Your task to perform on an android device: turn on airplane mode Image 0: 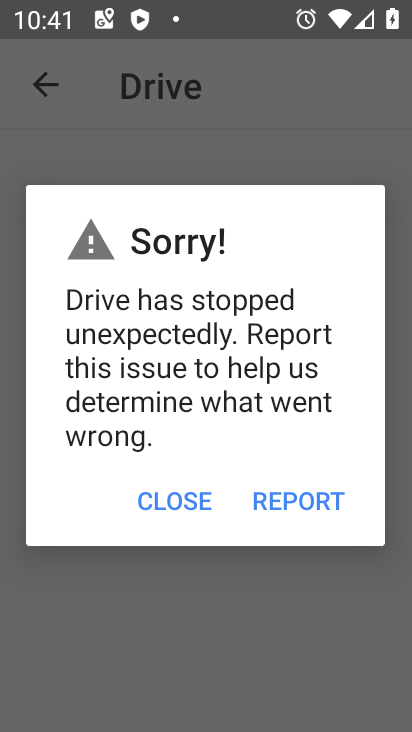
Step 0: press home button
Your task to perform on an android device: turn on airplane mode Image 1: 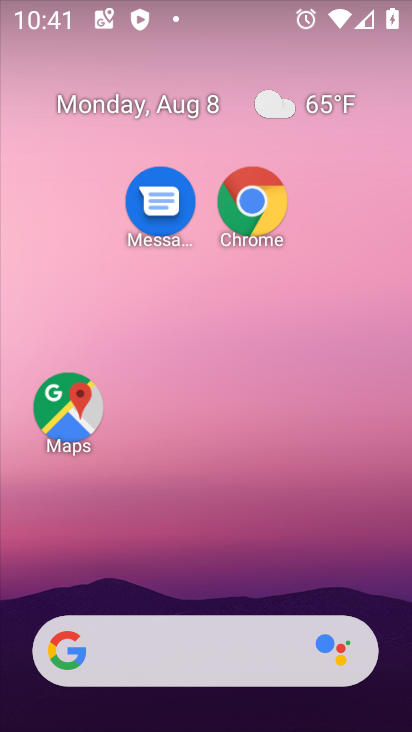
Step 1: drag from (244, 9) to (242, 569)
Your task to perform on an android device: turn on airplane mode Image 2: 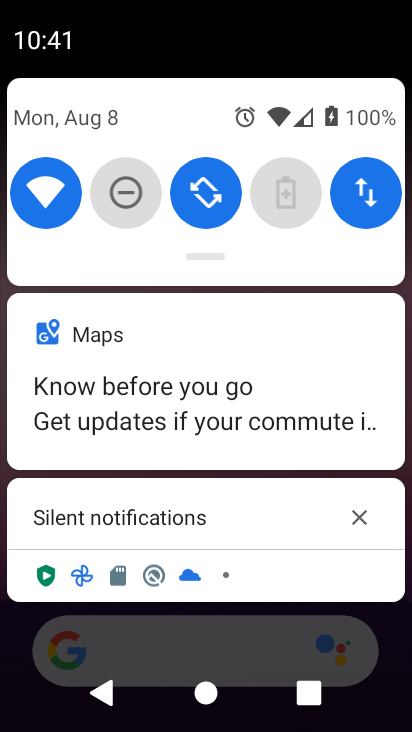
Step 2: drag from (207, 257) to (213, 720)
Your task to perform on an android device: turn on airplane mode Image 3: 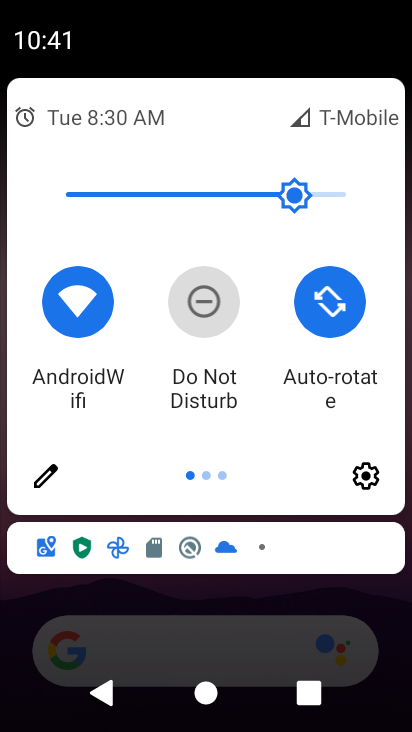
Step 3: drag from (352, 345) to (76, 313)
Your task to perform on an android device: turn on airplane mode Image 4: 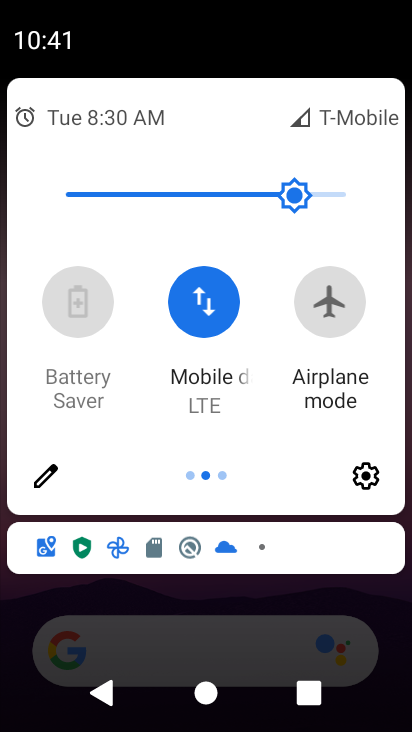
Step 4: click (326, 301)
Your task to perform on an android device: turn on airplane mode Image 5: 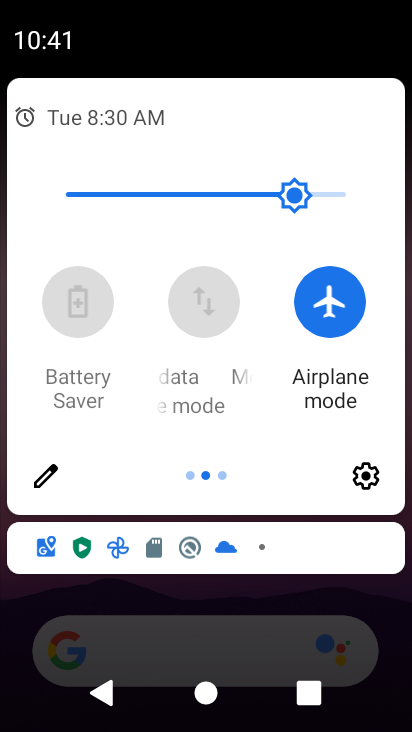
Step 5: task complete